Your task to perform on an android device: Go to Wikipedia Image 0: 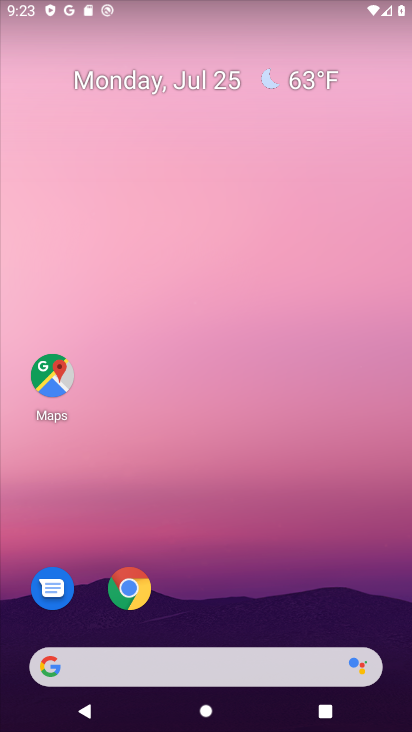
Step 0: drag from (289, 552) to (349, 67)
Your task to perform on an android device: Go to Wikipedia Image 1: 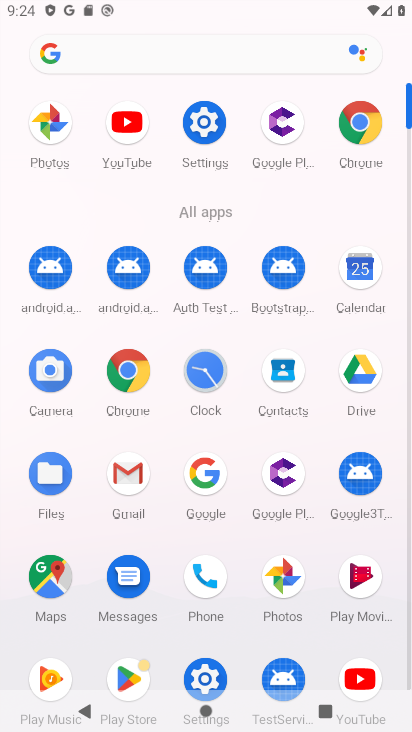
Step 1: drag from (240, 497) to (283, 213)
Your task to perform on an android device: Go to Wikipedia Image 2: 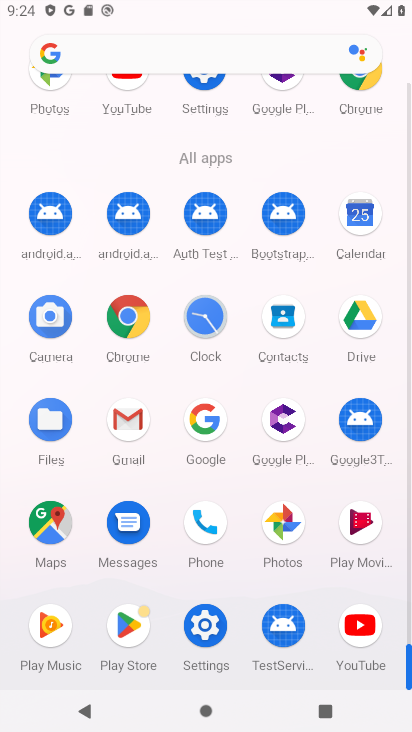
Step 2: drag from (243, 267) to (242, 456)
Your task to perform on an android device: Go to Wikipedia Image 3: 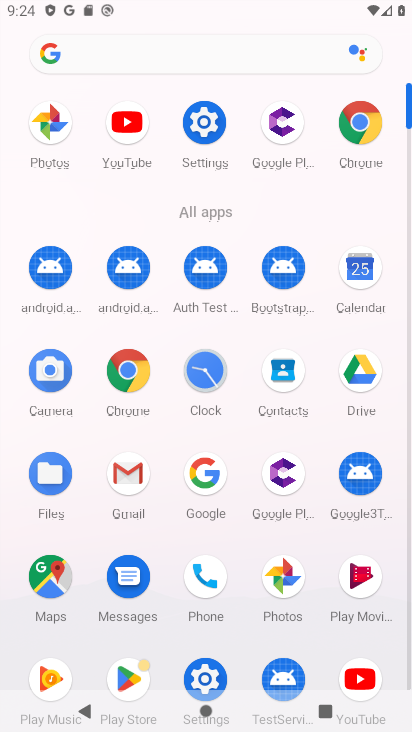
Step 3: click (364, 131)
Your task to perform on an android device: Go to Wikipedia Image 4: 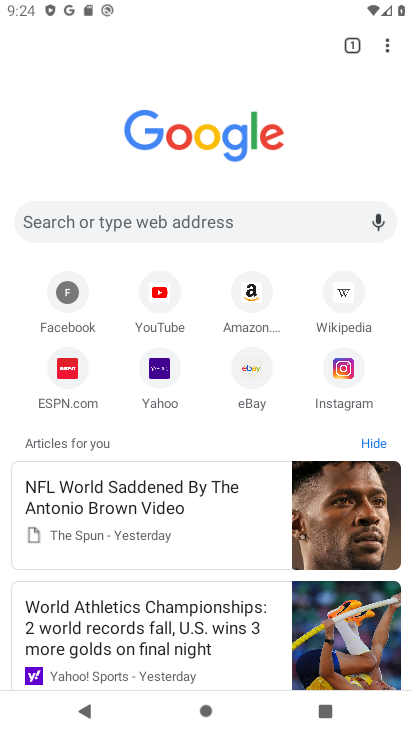
Step 4: click (342, 280)
Your task to perform on an android device: Go to Wikipedia Image 5: 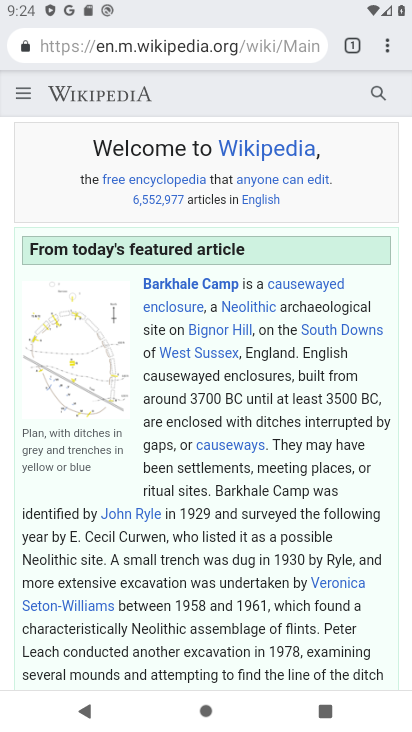
Step 5: task complete